Your task to perform on an android device: Clear the shopping cart on amazon.com. Add "logitech g pro" to the cart on amazon.com Image 0: 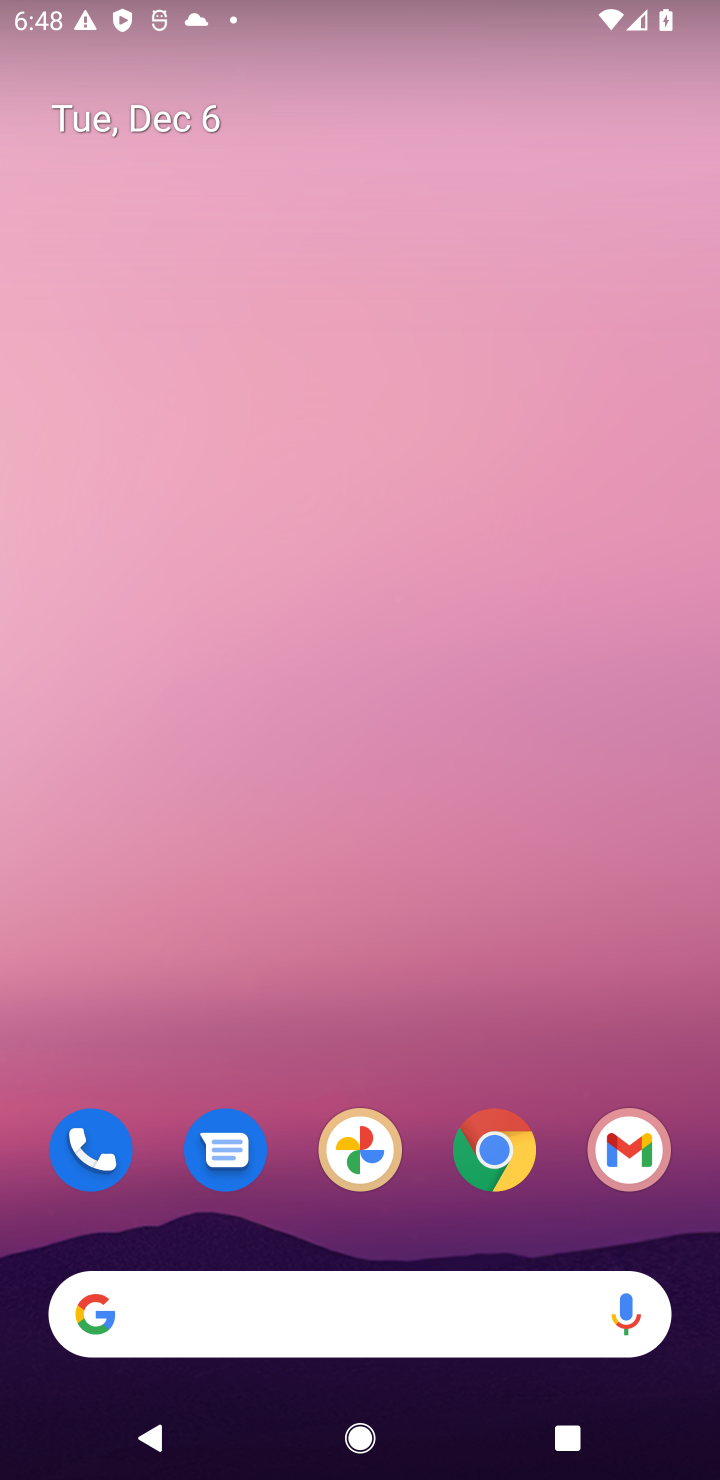
Step 0: click (488, 1162)
Your task to perform on an android device: Clear the shopping cart on amazon.com. Add "logitech g pro" to the cart on amazon.com Image 1: 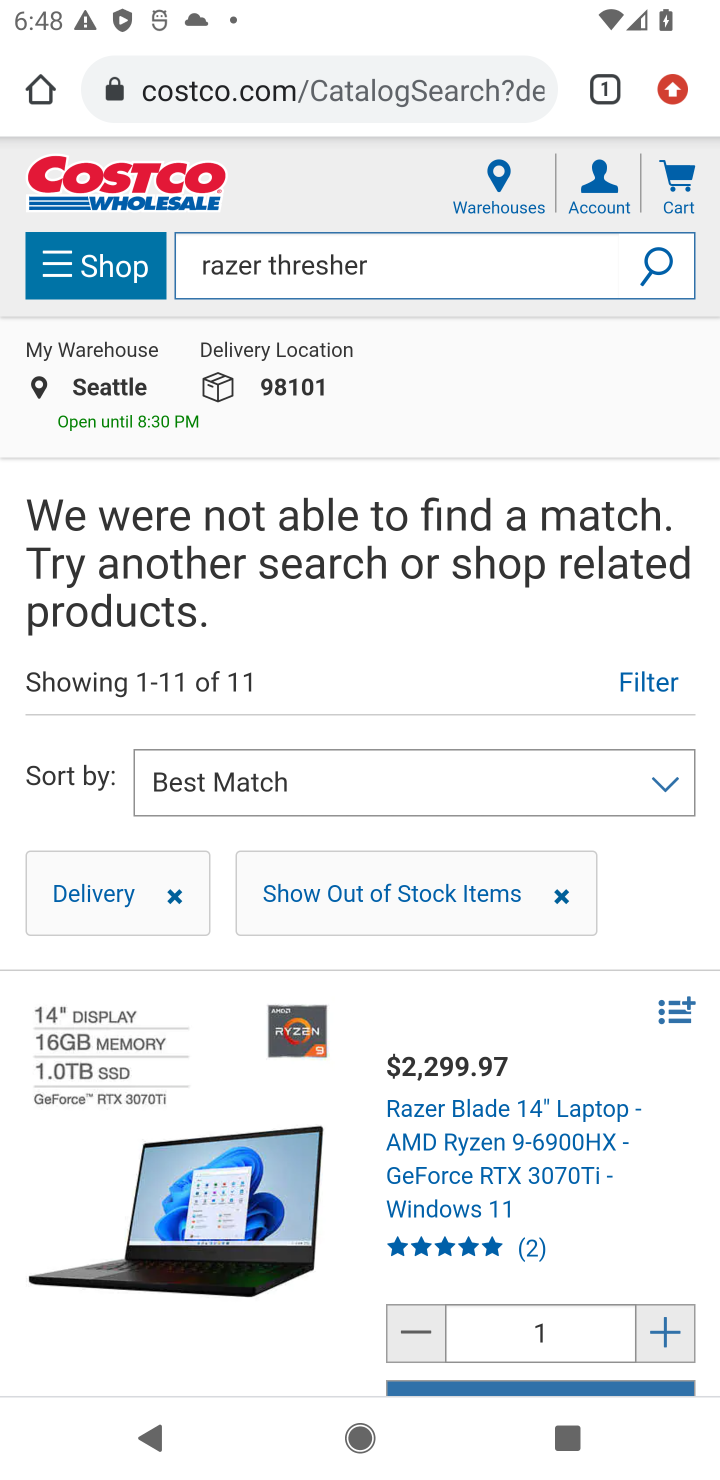
Step 1: click (289, 91)
Your task to perform on an android device: Clear the shopping cart on amazon.com. Add "logitech g pro" to the cart on amazon.com Image 2: 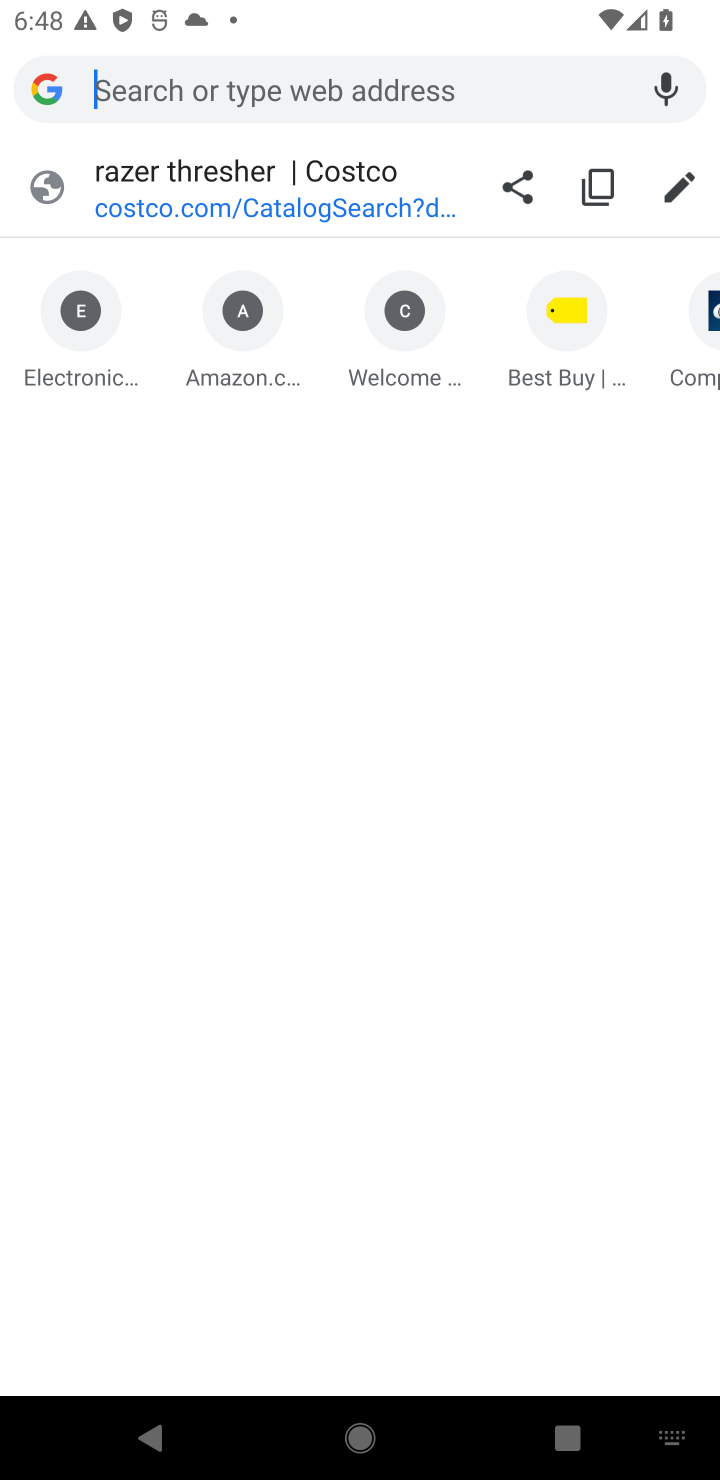
Step 2: click (245, 331)
Your task to perform on an android device: Clear the shopping cart on amazon.com. Add "logitech g pro" to the cart on amazon.com Image 3: 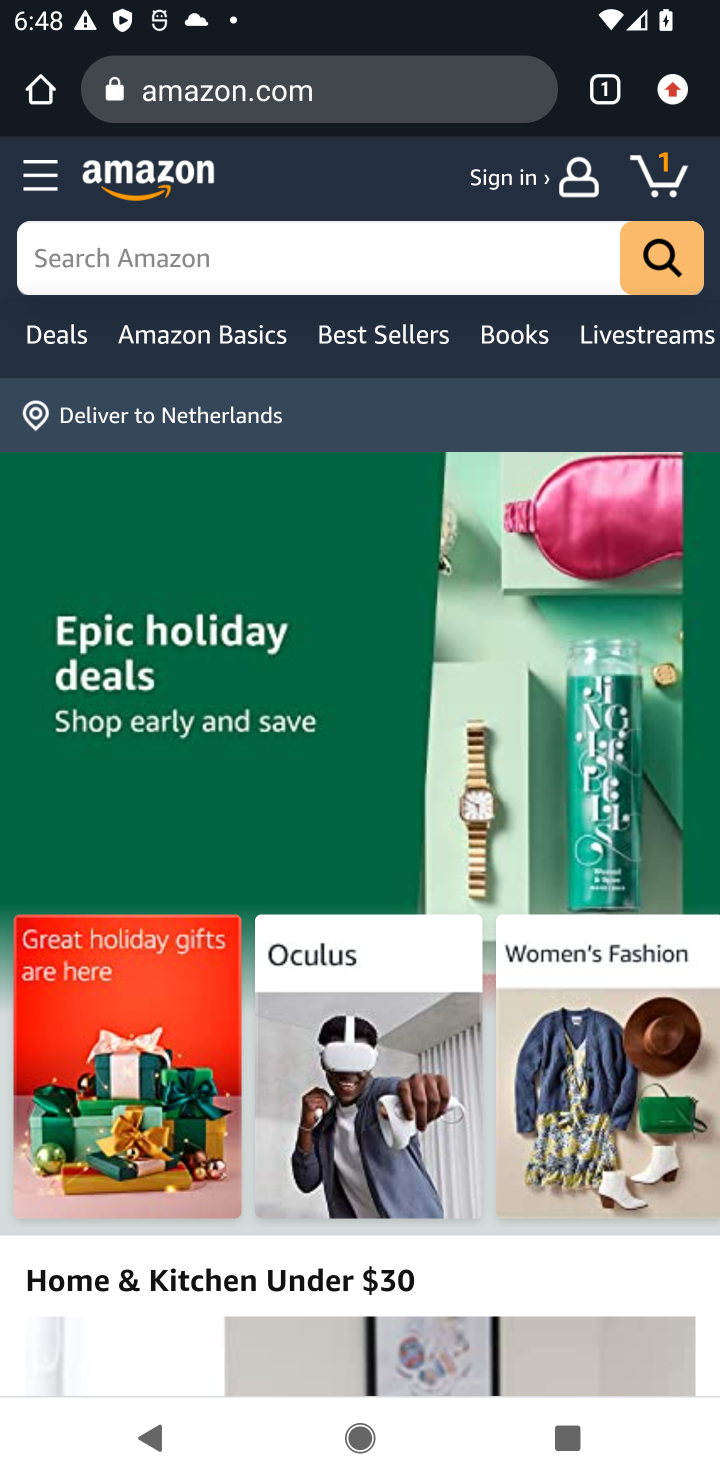
Step 3: click (666, 171)
Your task to perform on an android device: Clear the shopping cart on amazon.com. Add "logitech g pro" to the cart on amazon.com Image 4: 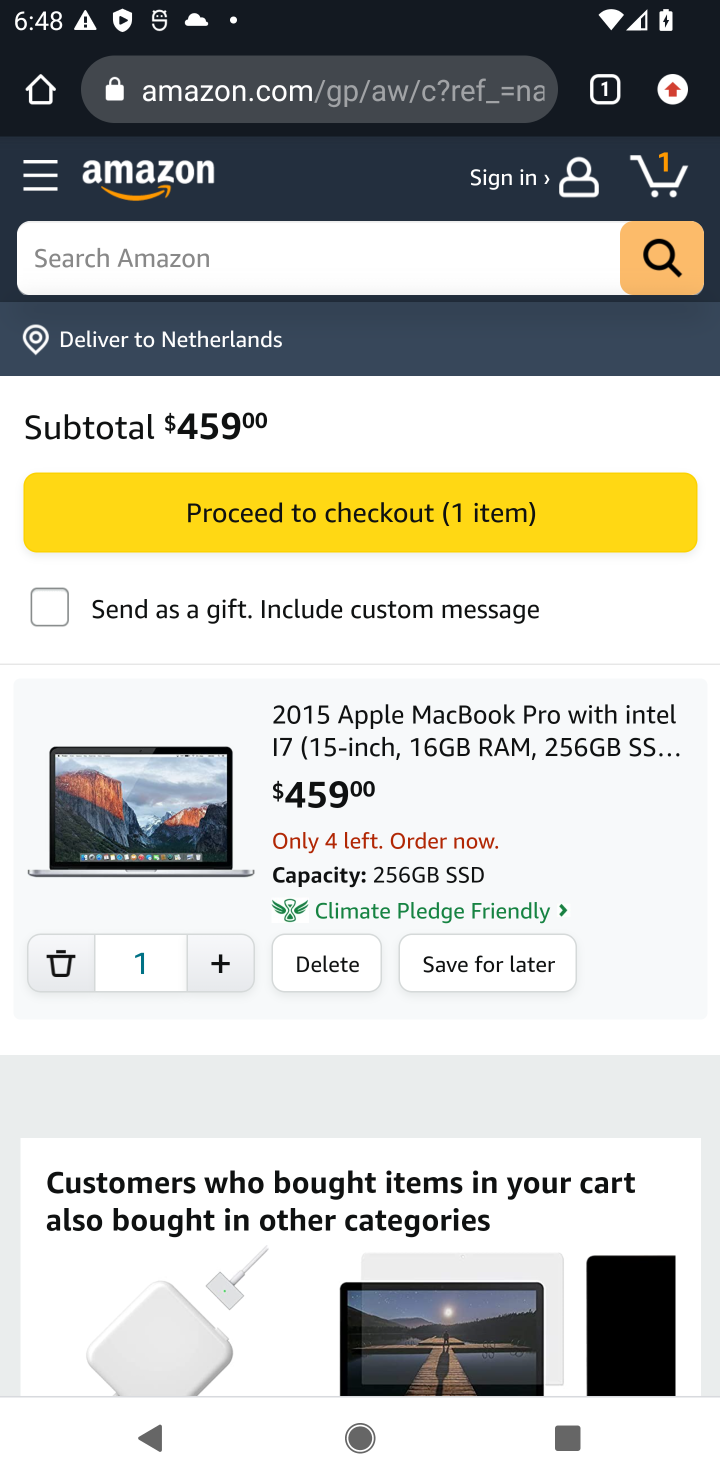
Step 4: click (296, 957)
Your task to perform on an android device: Clear the shopping cart on amazon.com. Add "logitech g pro" to the cart on amazon.com Image 5: 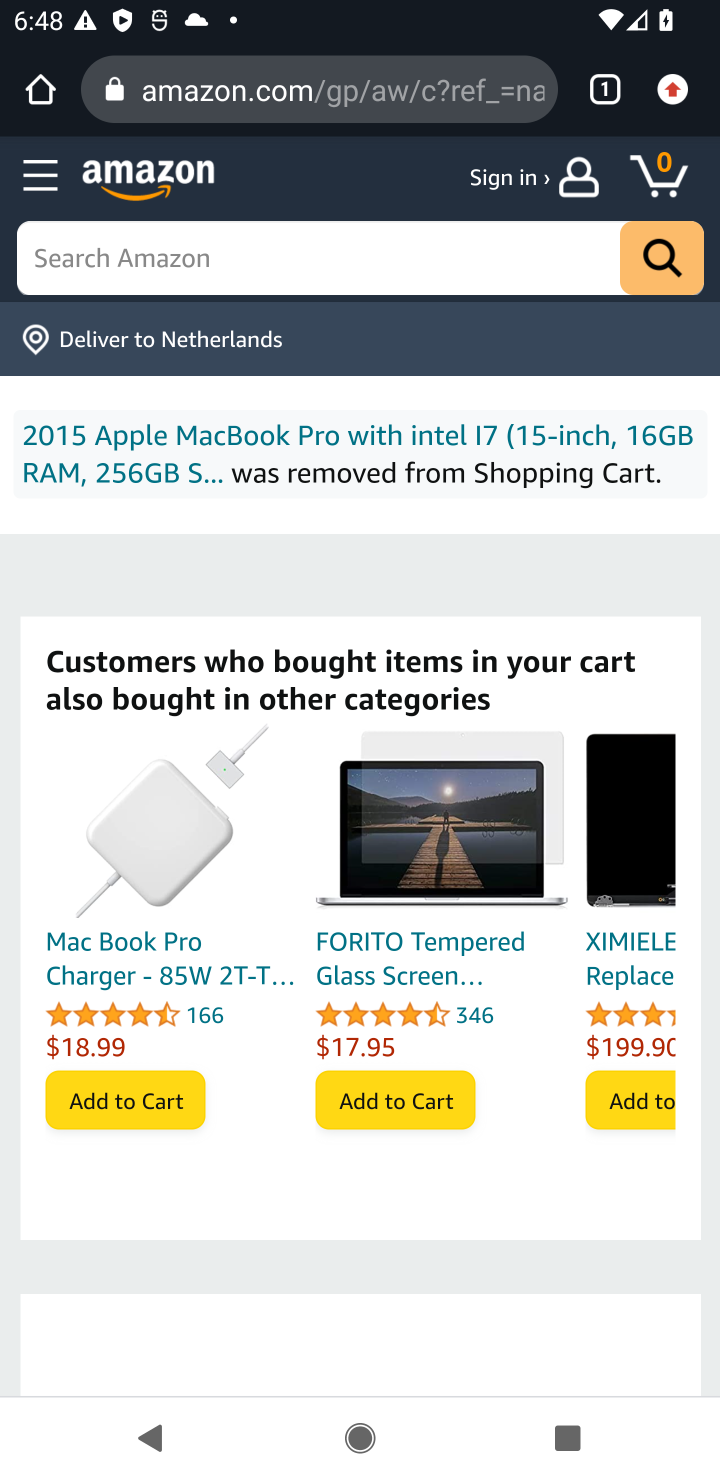
Step 5: click (229, 265)
Your task to perform on an android device: Clear the shopping cart on amazon.com. Add "logitech g pro" to the cart on amazon.com Image 6: 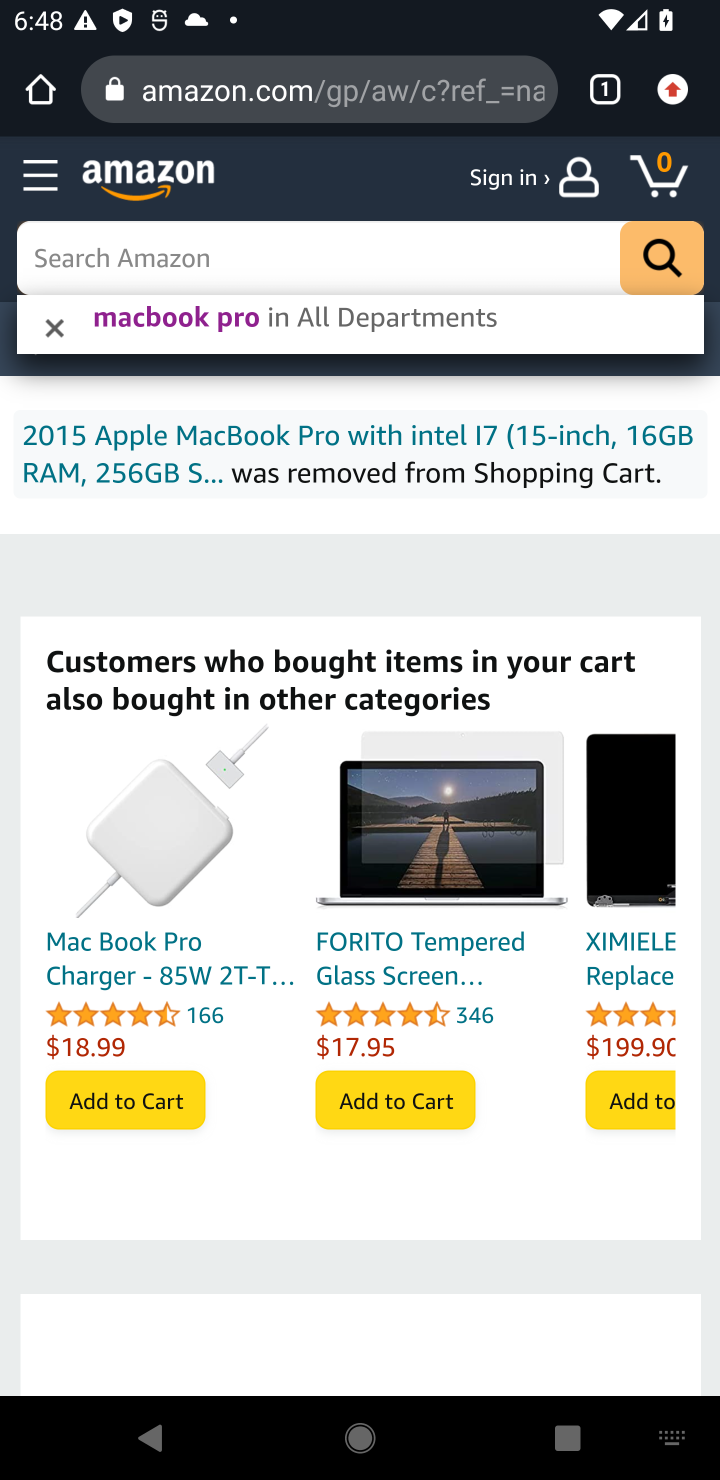
Step 6: type "logitech g pro "
Your task to perform on an android device: Clear the shopping cart on amazon.com. Add "logitech g pro" to the cart on amazon.com Image 7: 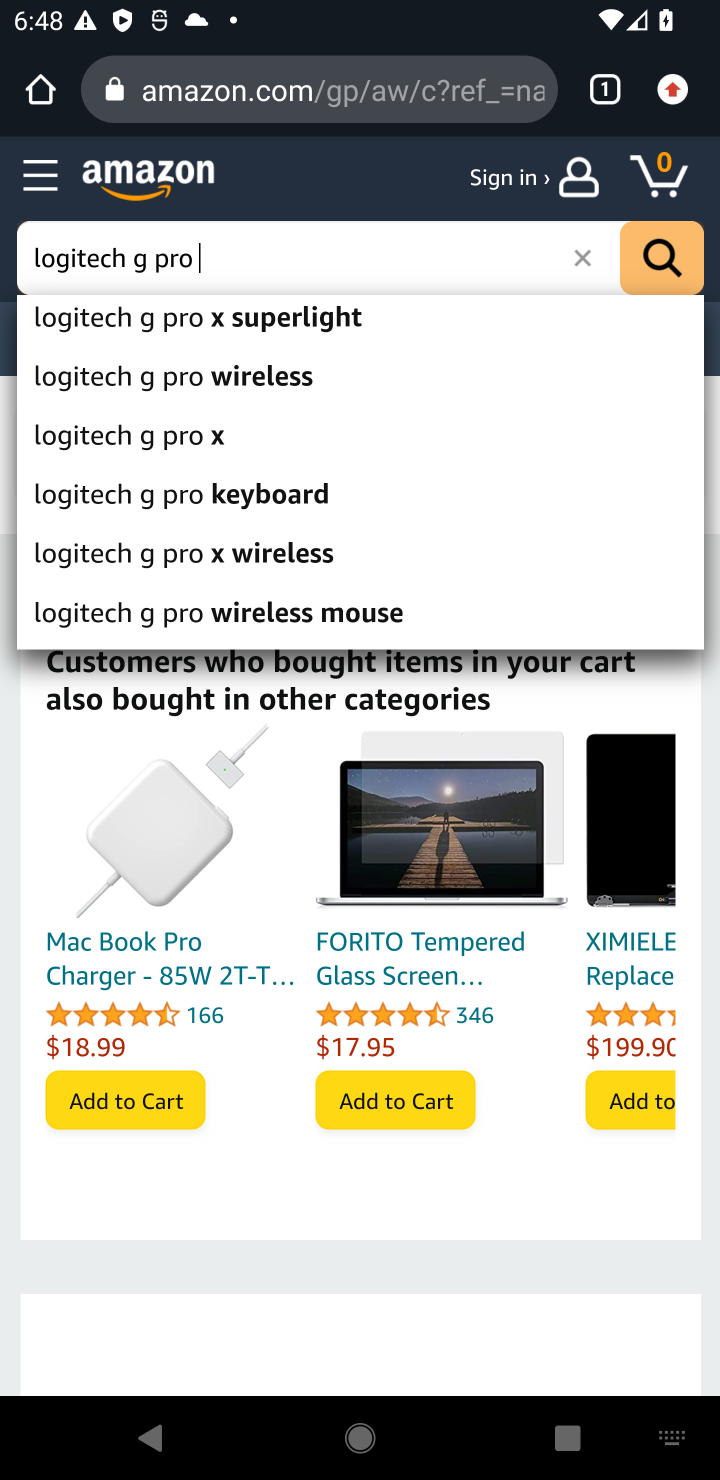
Step 7: click (660, 273)
Your task to perform on an android device: Clear the shopping cart on amazon.com. Add "logitech g pro" to the cart on amazon.com Image 8: 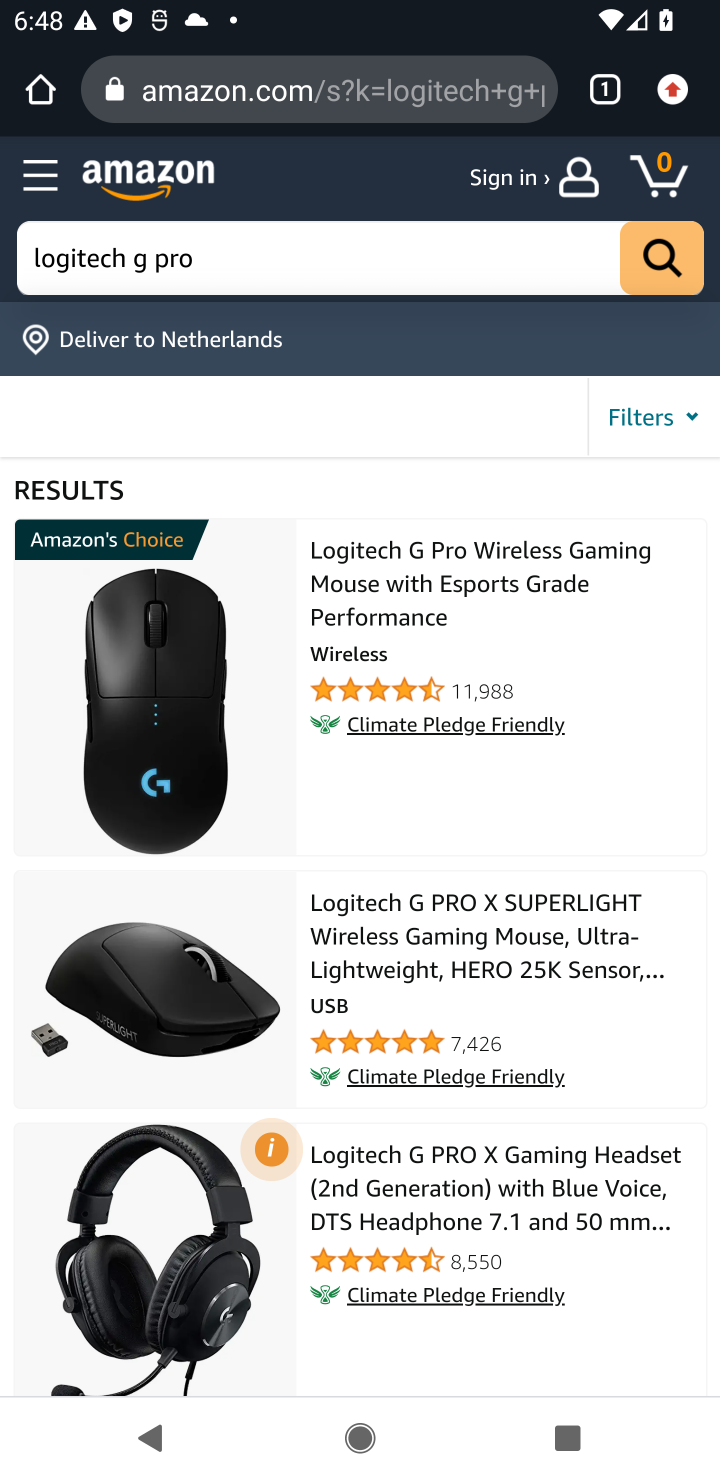
Step 8: drag from (513, 809) to (509, 616)
Your task to perform on an android device: Clear the shopping cart on amazon.com. Add "logitech g pro" to the cart on amazon.com Image 9: 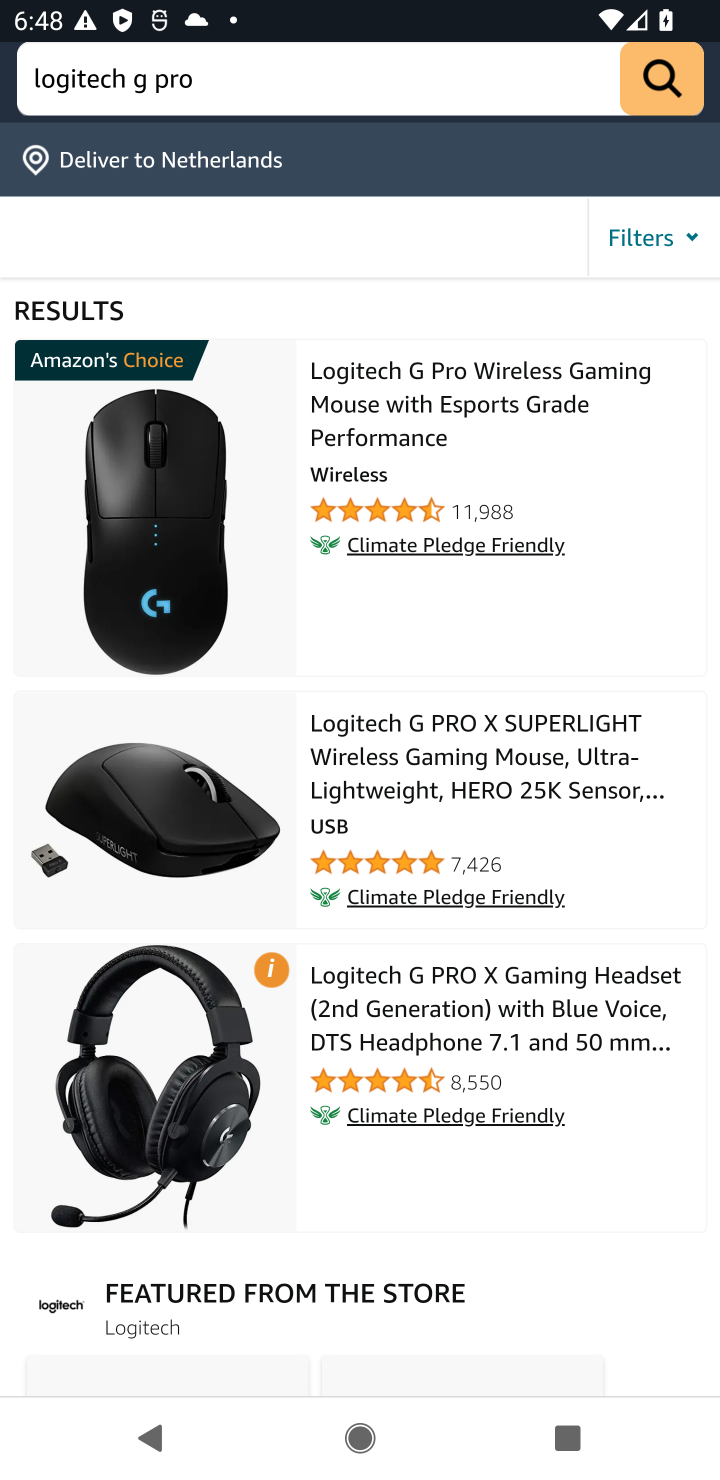
Step 9: drag from (512, 1009) to (467, 572)
Your task to perform on an android device: Clear the shopping cart on amazon.com. Add "logitech g pro" to the cart on amazon.com Image 10: 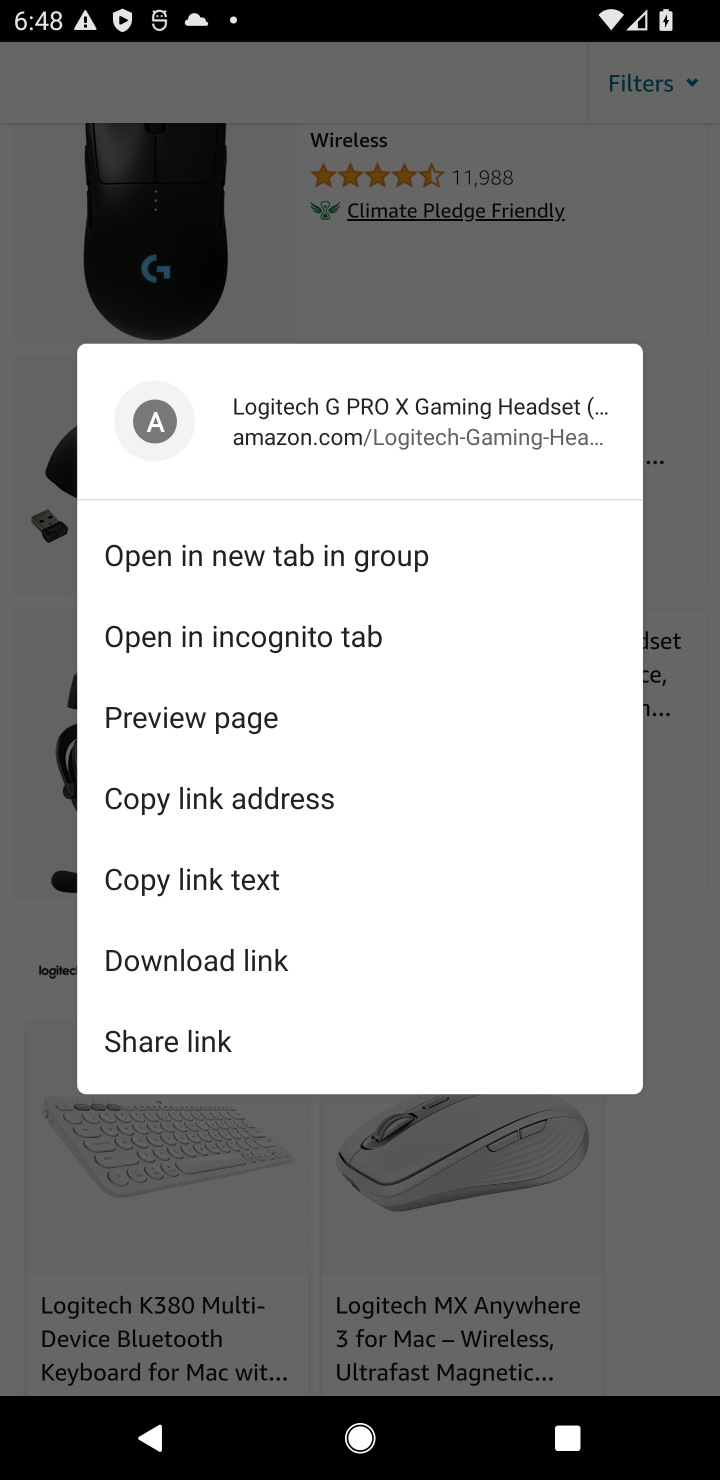
Step 10: click (676, 1186)
Your task to perform on an android device: Clear the shopping cart on amazon.com. Add "logitech g pro" to the cart on amazon.com Image 11: 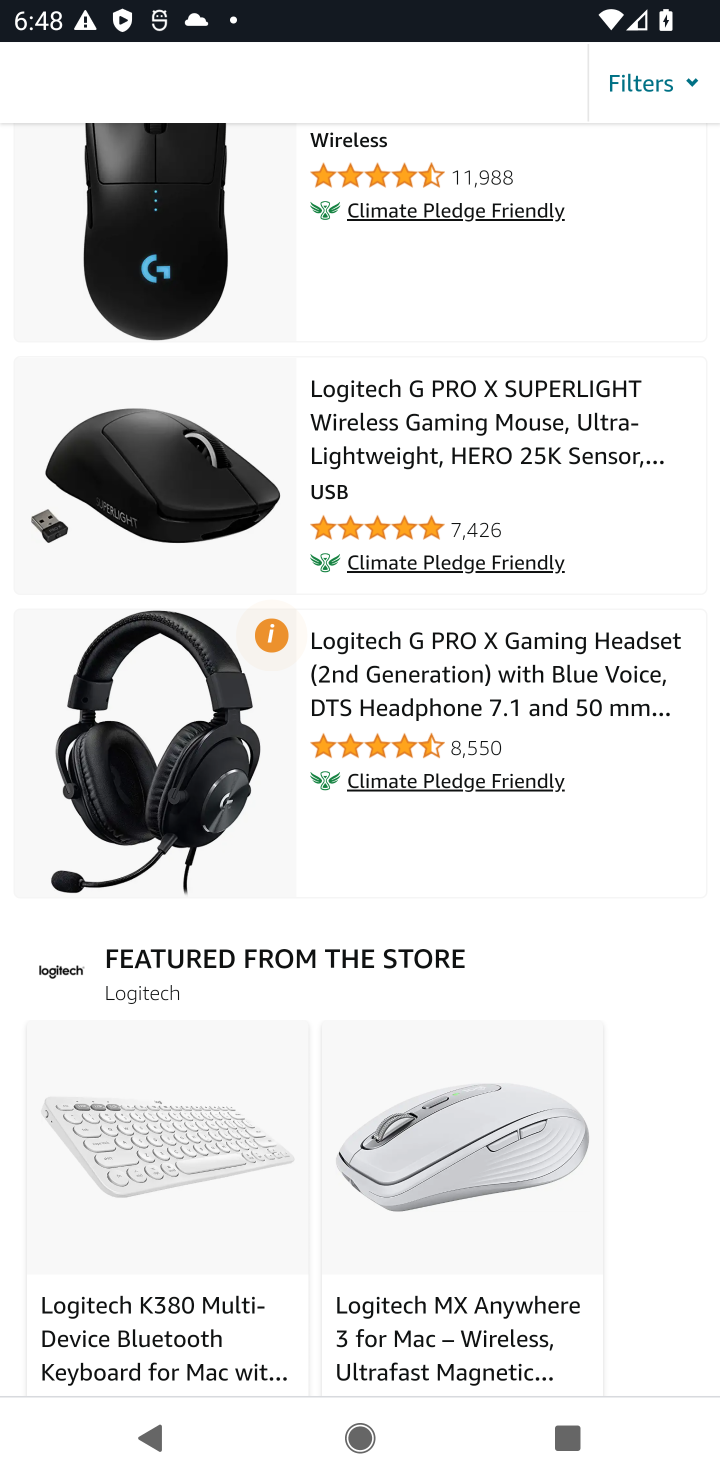
Step 11: drag from (573, 1212) to (524, 503)
Your task to perform on an android device: Clear the shopping cart on amazon.com. Add "logitech g pro" to the cart on amazon.com Image 12: 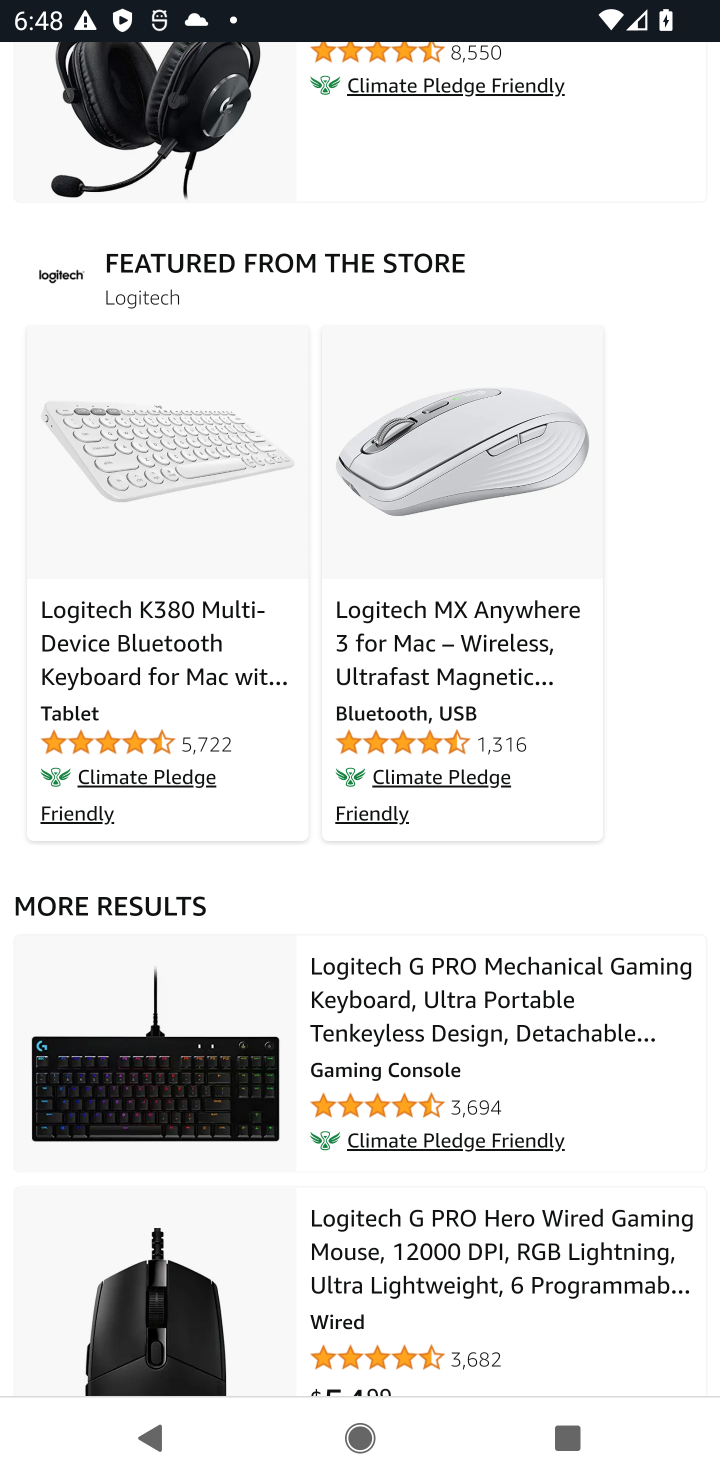
Step 12: drag from (483, 965) to (435, 590)
Your task to perform on an android device: Clear the shopping cart on amazon.com. Add "logitech g pro" to the cart on amazon.com Image 13: 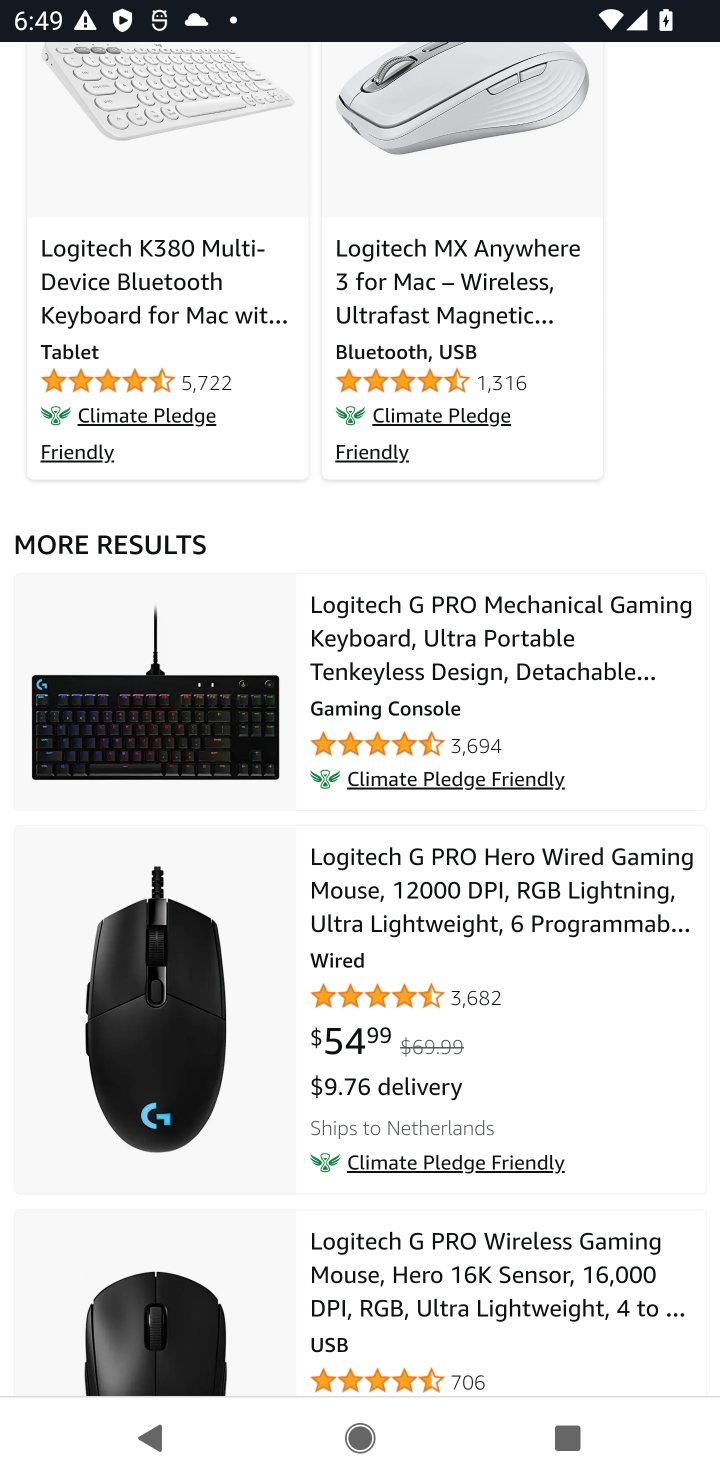
Step 13: click (515, 886)
Your task to perform on an android device: Clear the shopping cart on amazon.com. Add "logitech g pro" to the cart on amazon.com Image 14: 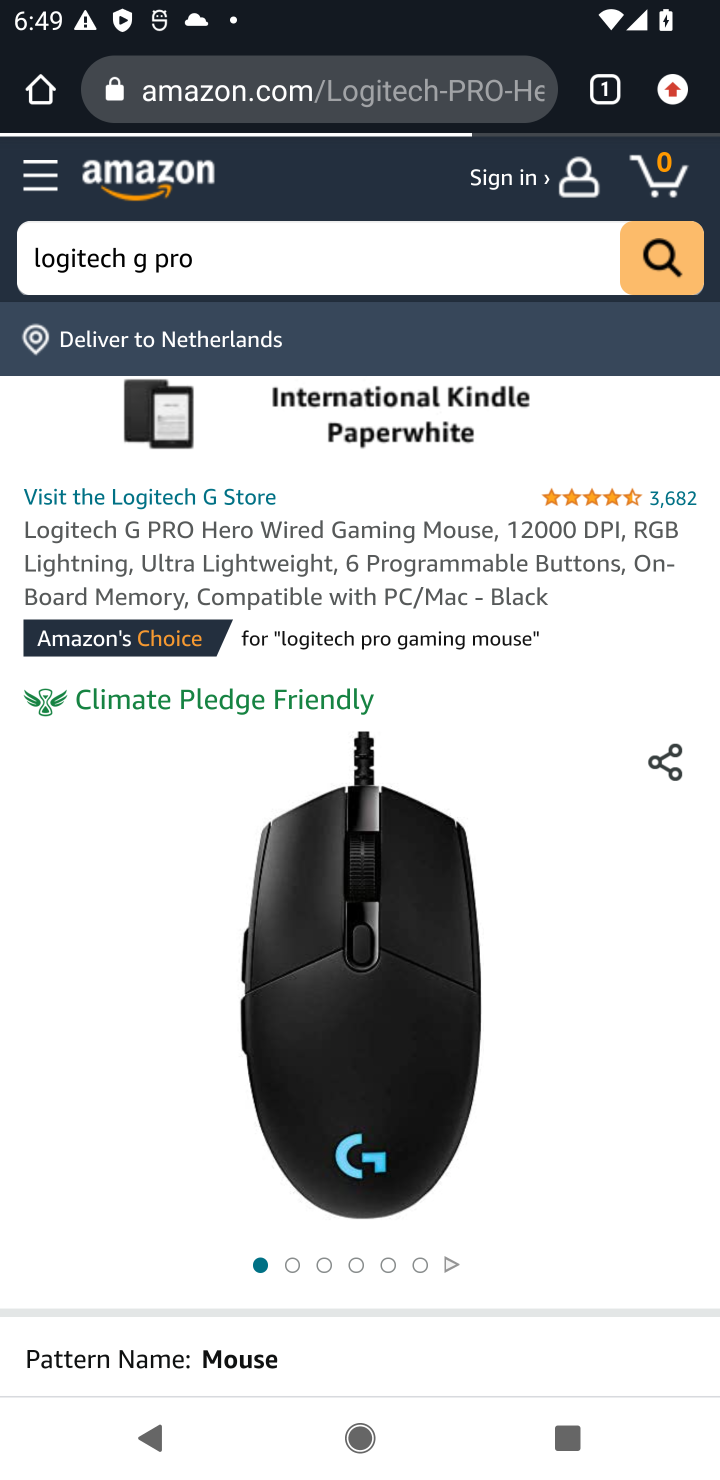
Step 14: drag from (602, 1058) to (586, 581)
Your task to perform on an android device: Clear the shopping cart on amazon.com. Add "logitech g pro" to the cart on amazon.com Image 15: 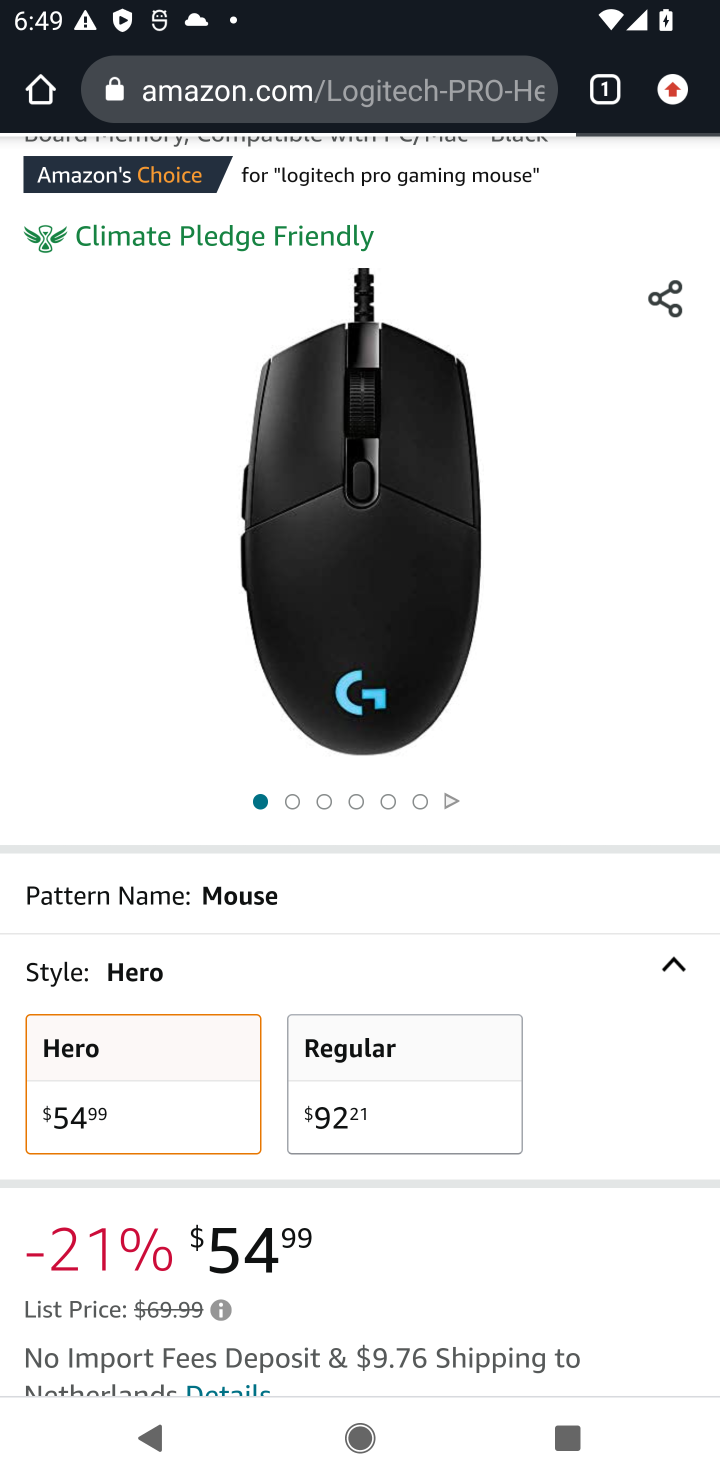
Step 15: drag from (604, 1104) to (545, 571)
Your task to perform on an android device: Clear the shopping cart on amazon.com. Add "logitech g pro" to the cart on amazon.com Image 16: 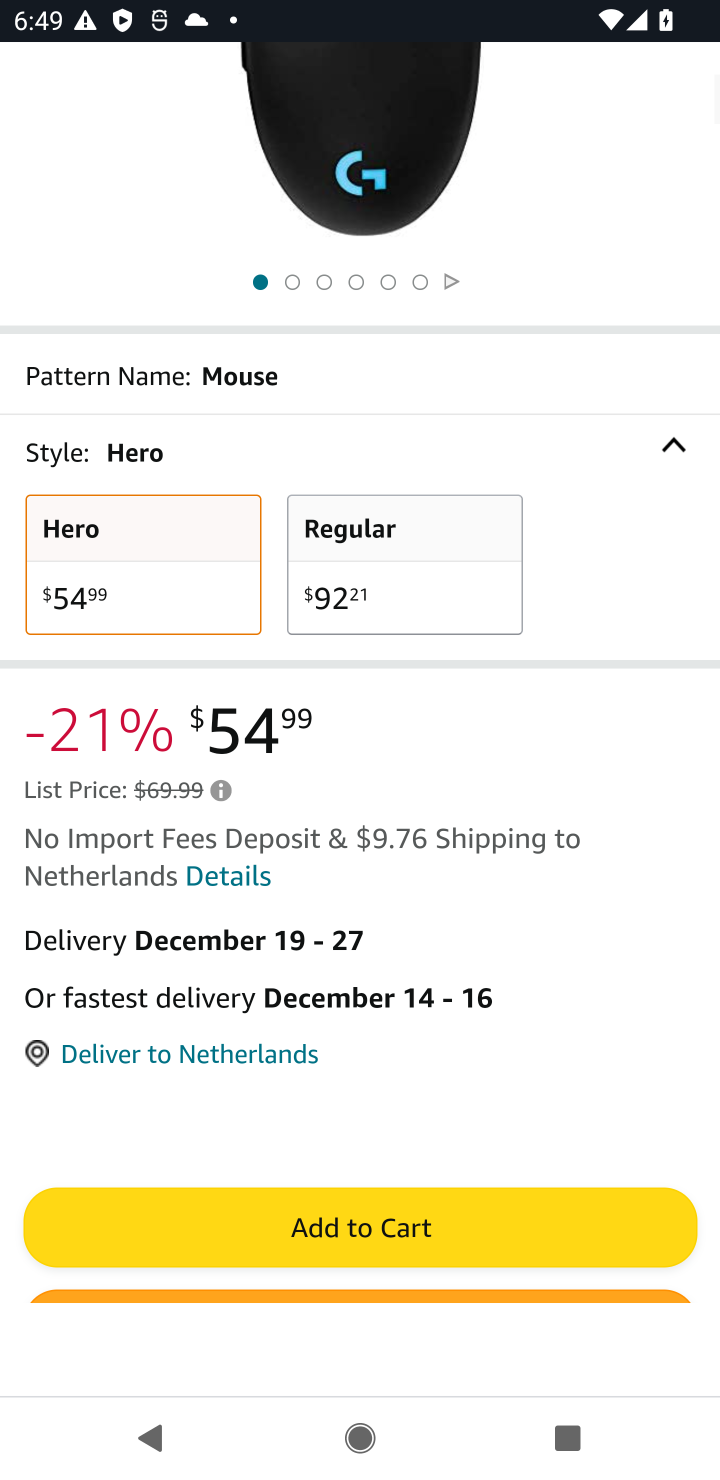
Step 16: click (375, 1217)
Your task to perform on an android device: Clear the shopping cart on amazon.com. Add "logitech g pro" to the cart on amazon.com Image 17: 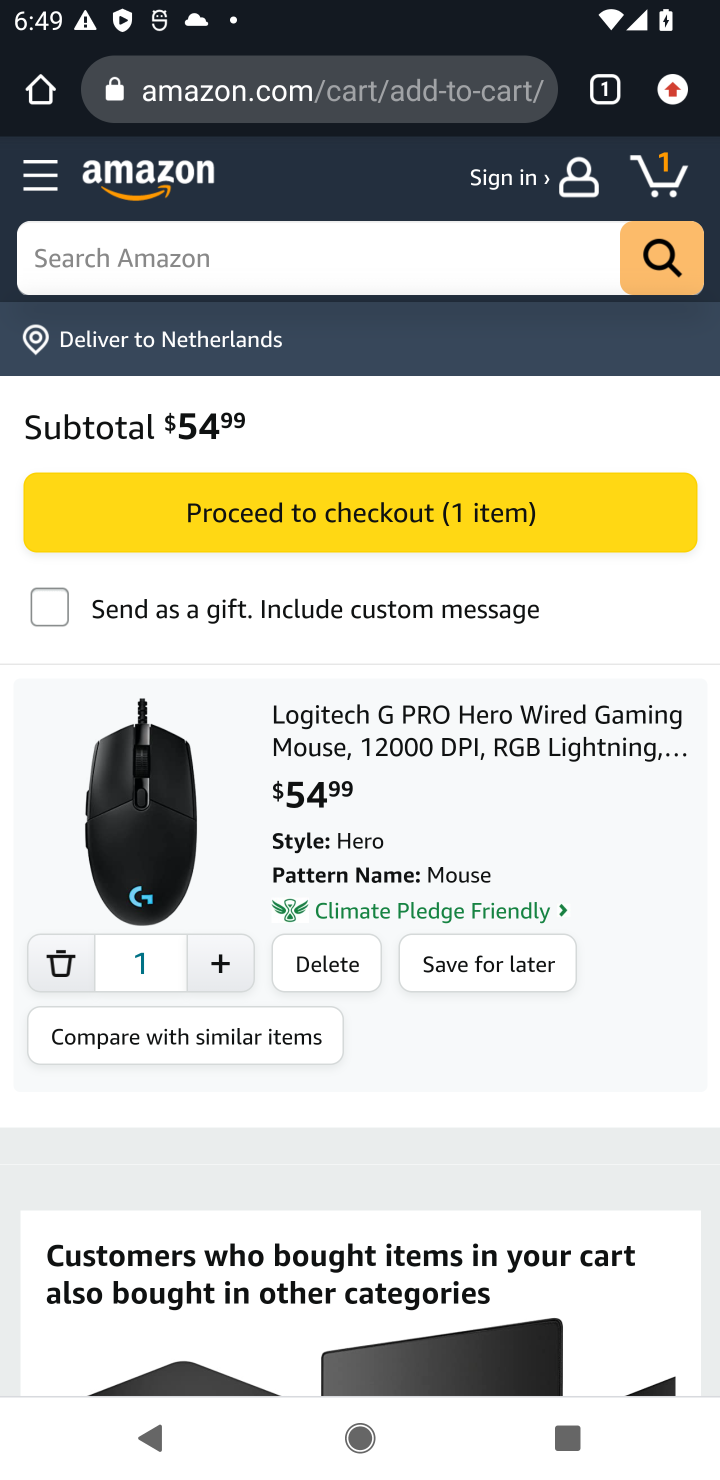
Step 17: task complete